Your task to perform on an android device: Go to notification settings Image 0: 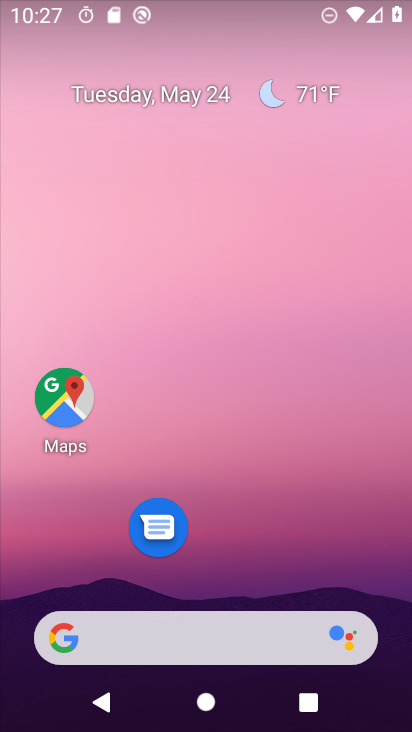
Step 0: drag from (246, 548) to (317, 71)
Your task to perform on an android device: Go to notification settings Image 1: 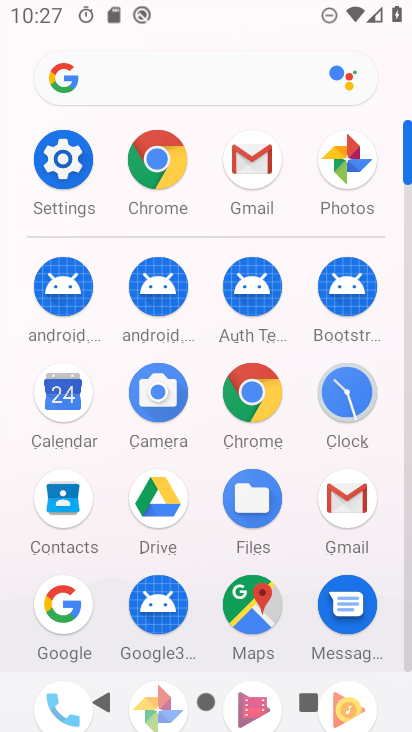
Step 1: click (59, 156)
Your task to perform on an android device: Go to notification settings Image 2: 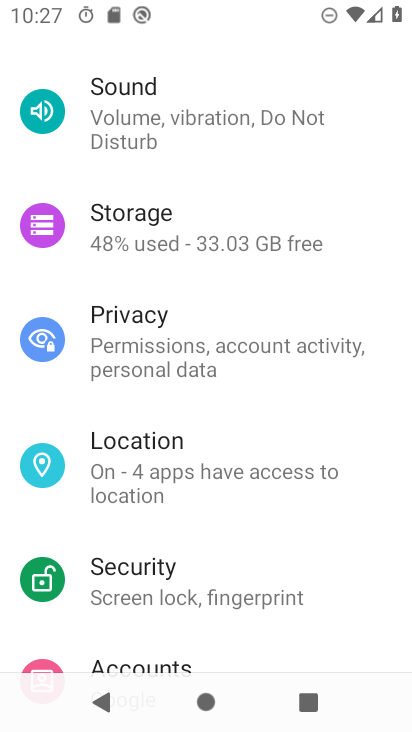
Step 2: drag from (175, 97) to (239, 574)
Your task to perform on an android device: Go to notification settings Image 3: 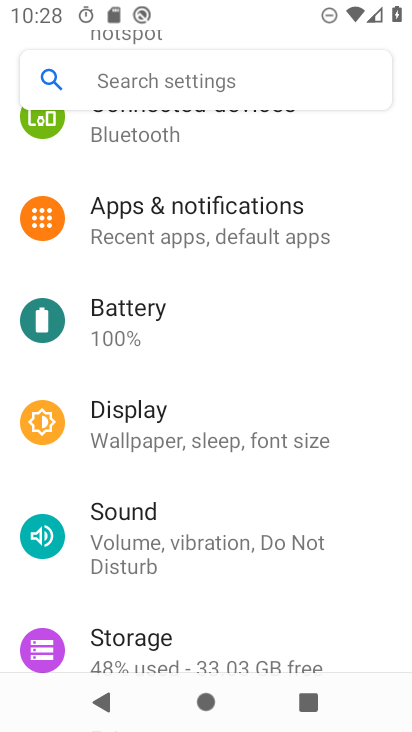
Step 3: click (170, 229)
Your task to perform on an android device: Go to notification settings Image 4: 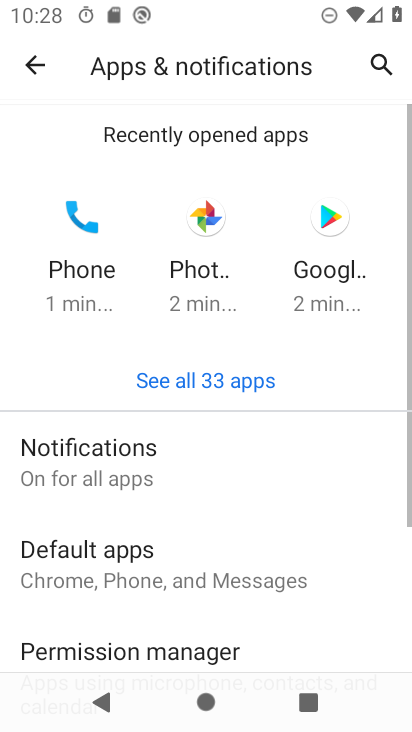
Step 4: click (155, 468)
Your task to perform on an android device: Go to notification settings Image 5: 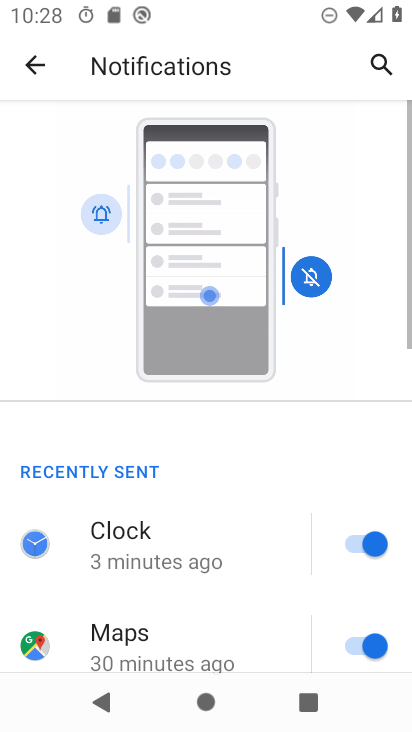
Step 5: task complete